Your task to perform on an android device: choose inbox layout in the gmail app Image 0: 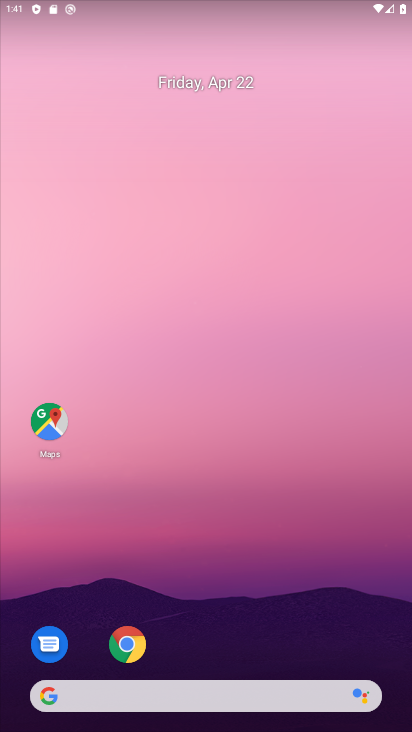
Step 0: drag from (300, 350) to (299, 235)
Your task to perform on an android device: choose inbox layout in the gmail app Image 1: 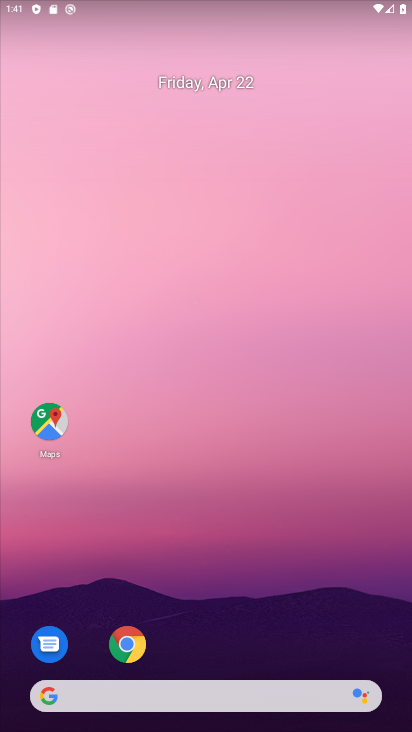
Step 1: drag from (265, 643) to (282, 283)
Your task to perform on an android device: choose inbox layout in the gmail app Image 2: 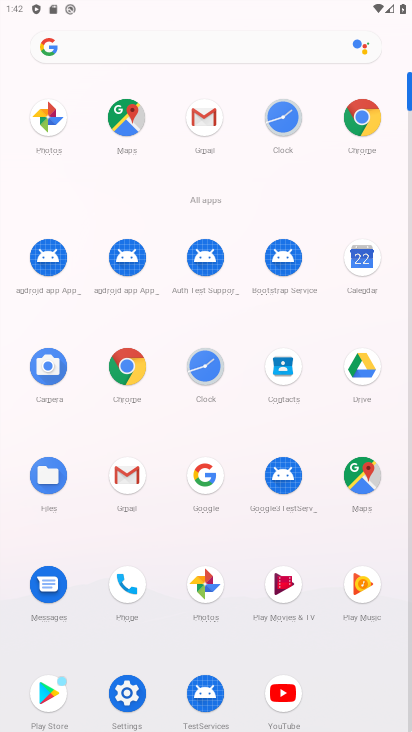
Step 2: click (137, 487)
Your task to perform on an android device: choose inbox layout in the gmail app Image 3: 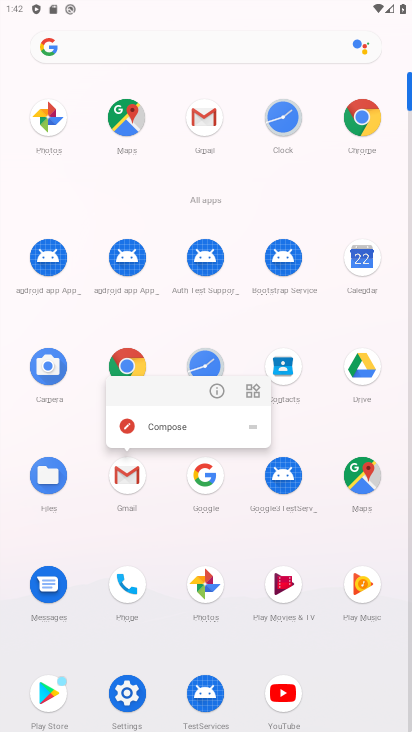
Step 3: click (132, 479)
Your task to perform on an android device: choose inbox layout in the gmail app Image 4: 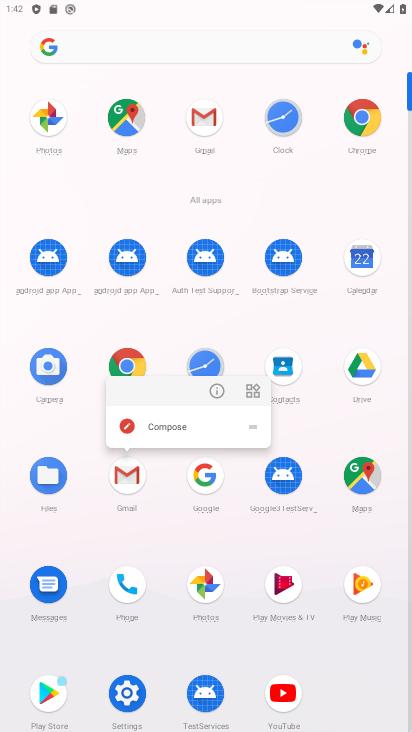
Step 4: click (125, 477)
Your task to perform on an android device: choose inbox layout in the gmail app Image 5: 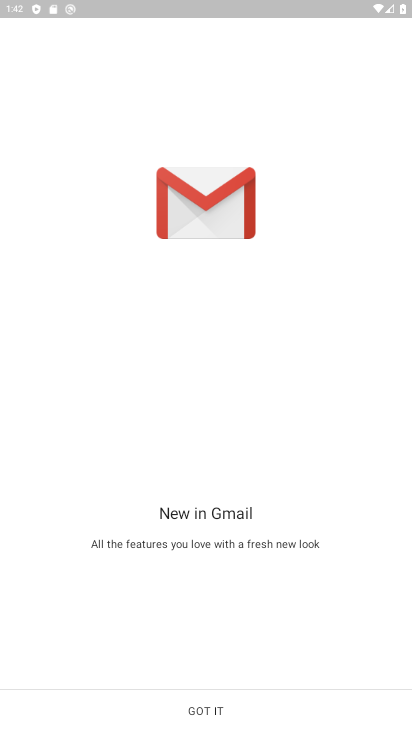
Step 5: click (215, 715)
Your task to perform on an android device: choose inbox layout in the gmail app Image 6: 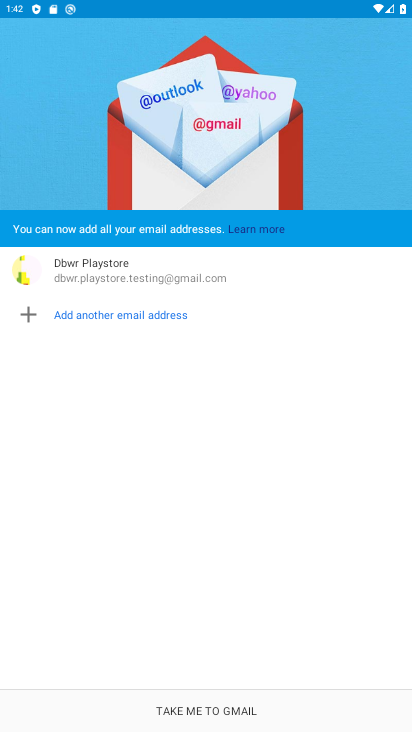
Step 6: click (211, 708)
Your task to perform on an android device: choose inbox layout in the gmail app Image 7: 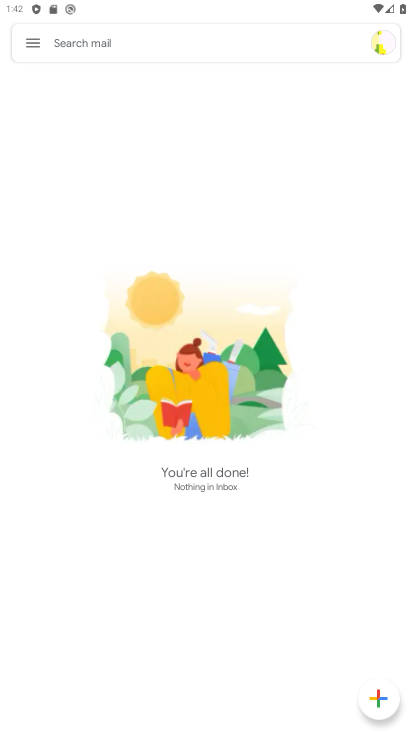
Step 7: click (28, 45)
Your task to perform on an android device: choose inbox layout in the gmail app Image 8: 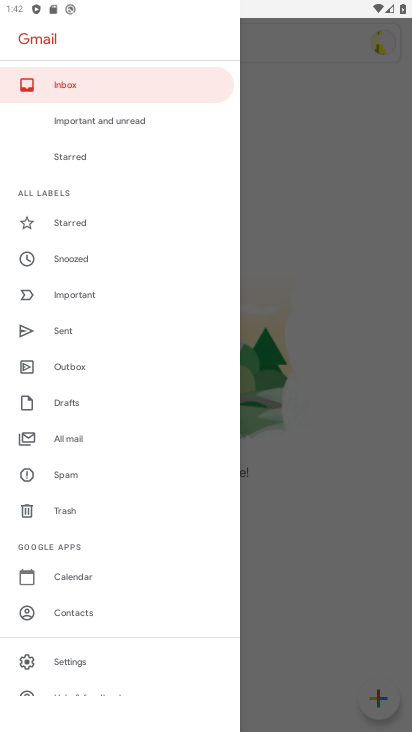
Step 8: drag from (92, 672) to (113, 419)
Your task to perform on an android device: choose inbox layout in the gmail app Image 9: 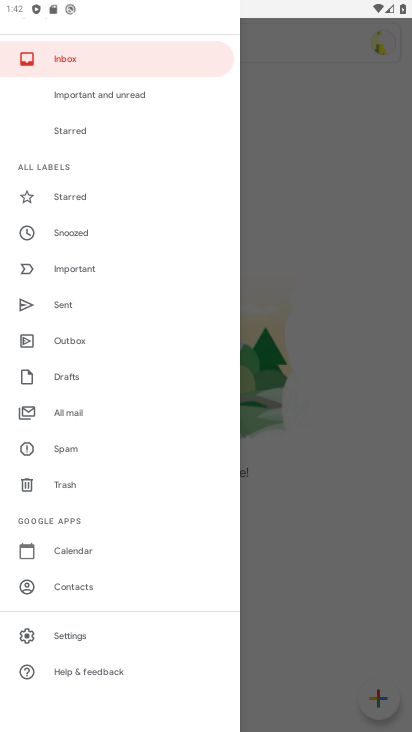
Step 9: click (65, 643)
Your task to perform on an android device: choose inbox layout in the gmail app Image 10: 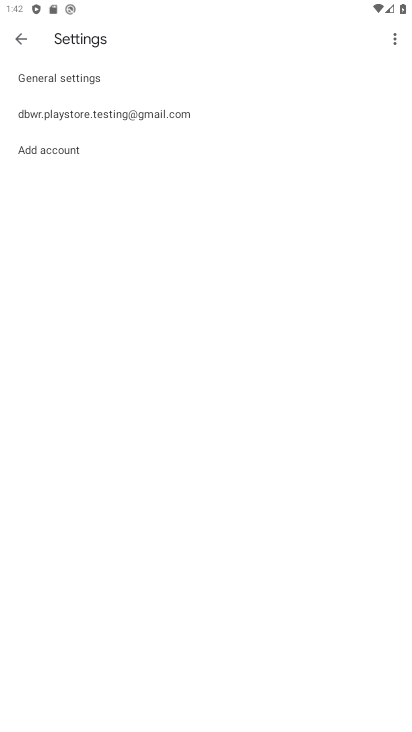
Step 10: click (97, 114)
Your task to perform on an android device: choose inbox layout in the gmail app Image 11: 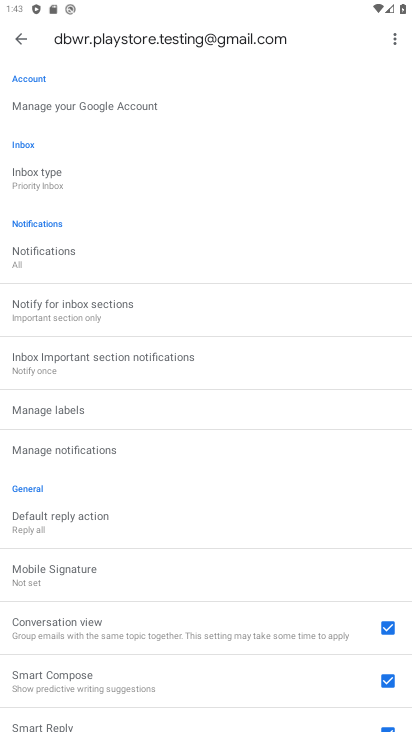
Step 11: click (35, 180)
Your task to perform on an android device: choose inbox layout in the gmail app Image 12: 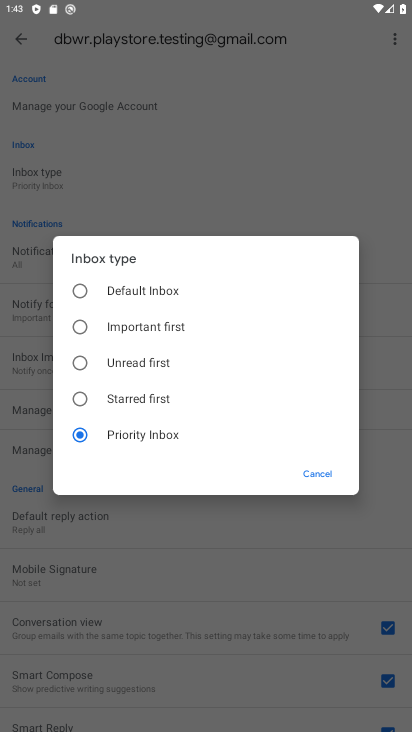
Step 12: click (84, 288)
Your task to perform on an android device: choose inbox layout in the gmail app Image 13: 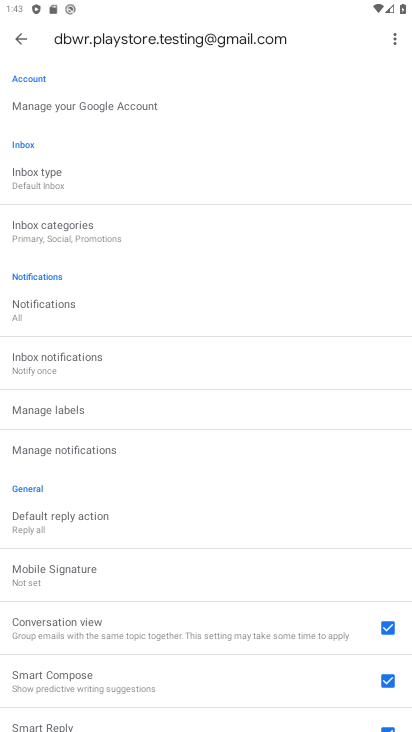
Step 13: task complete